Your task to perform on an android device: open a bookmark in the chrome app Image 0: 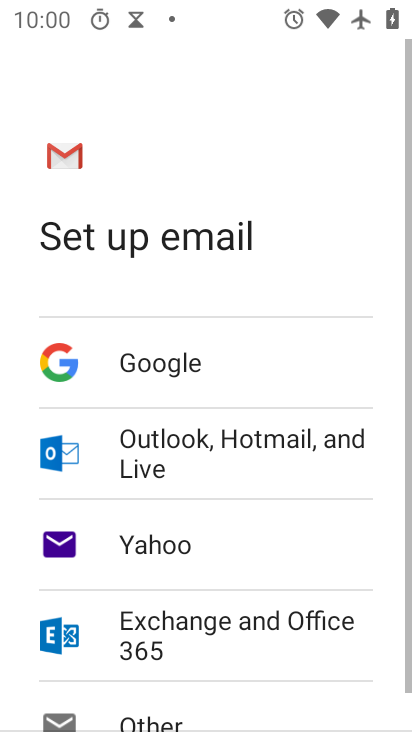
Step 0: press home button
Your task to perform on an android device: open a bookmark in the chrome app Image 1: 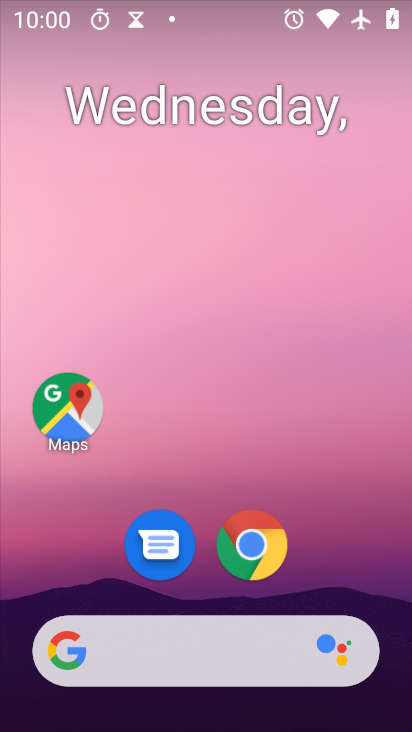
Step 1: click (256, 558)
Your task to perform on an android device: open a bookmark in the chrome app Image 2: 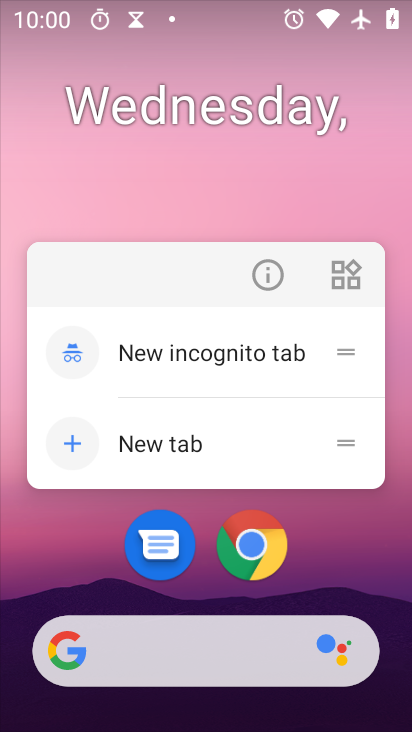
Step 2: click (255, 550)
Your task to perform on an android device: open a bookmark in the chrome app Image 3: 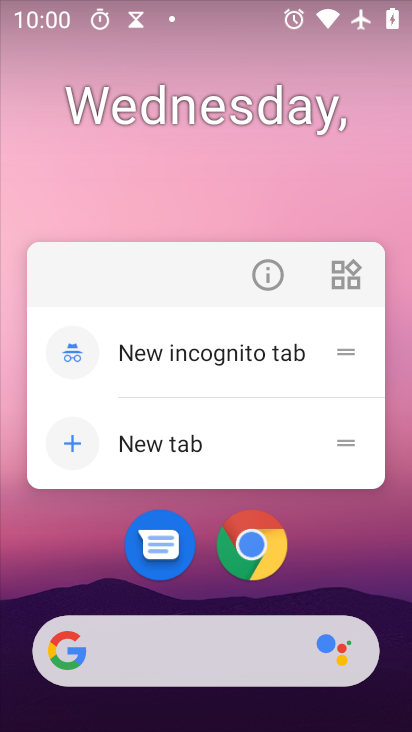
Step 3: click (240, 566)
Your task to perform on an android device: open a bookmark in the chrome app Image 4: 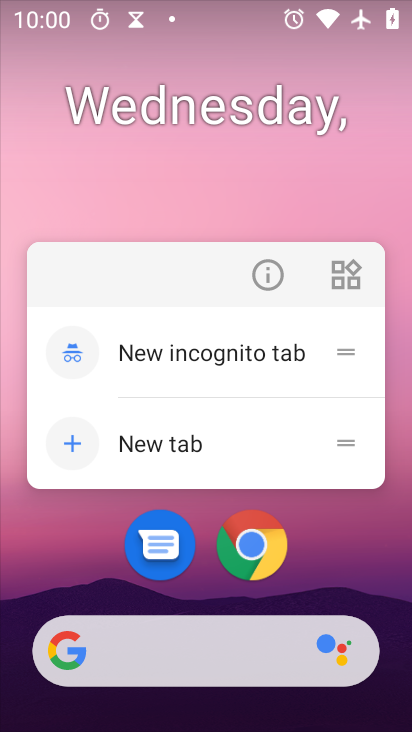
Step 4: click (247, 559)
Your task to perform on an android device: open a bookmark in the chrome app Image 5: 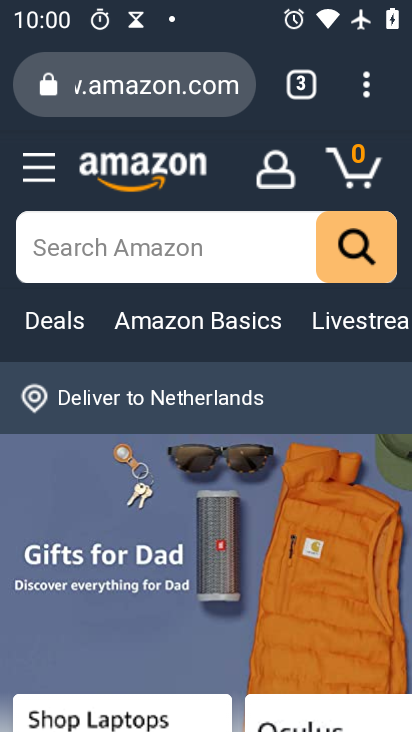
Step 5: task complete